Your task to perform on an android device: Open Youtube and go to the subscriptions tab Image 0: 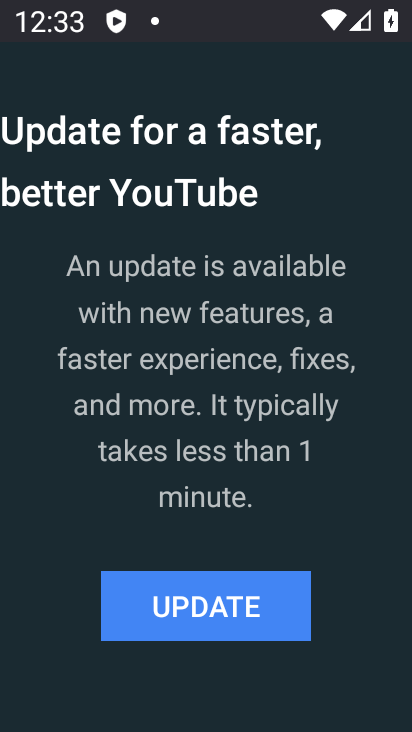
Step 0: press back button
Your task to perform on an android device: Open Youtube and go to the subscriptions tab Image 1: 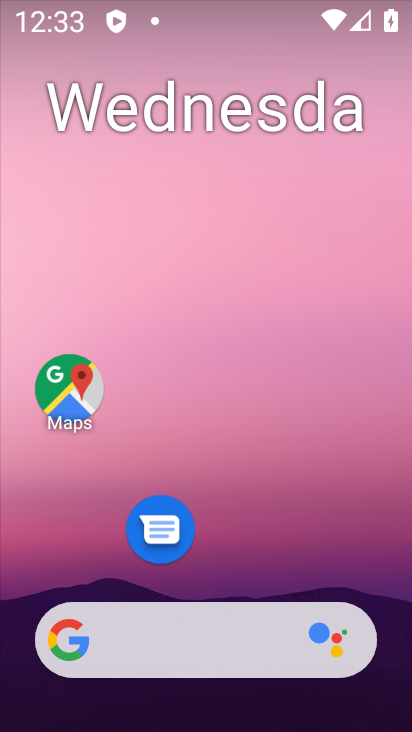
Step 1: drag from (244, 599) to (373, 546)
Your task to perform on an android device: Open Youtube and go to the subscriptions tab Image 2: 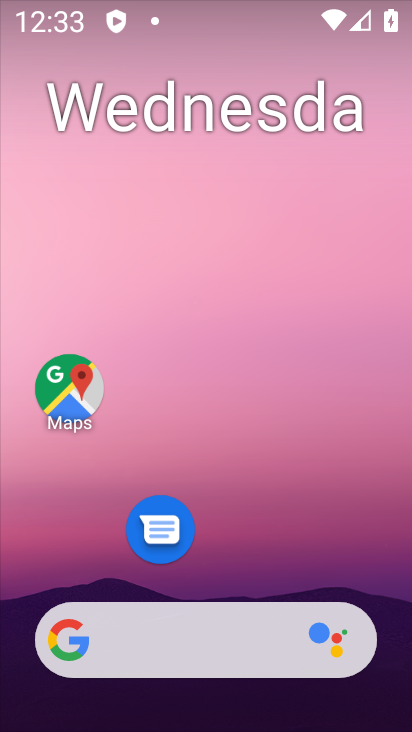
Step 2: drag from (339, 679) to (279, 2)
Your task to perform on an android device: Open Youtube and go to the subscriptions tab Image 3: 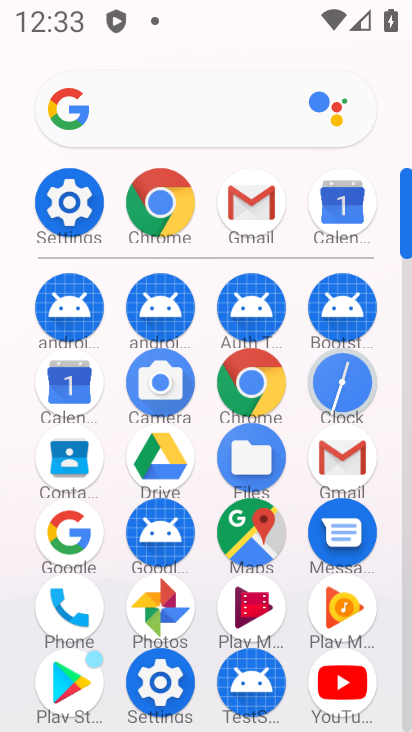
Step 3: click (346, 693)
Your task to perform on an android device: Open Youtube and go to the subscriptions tab Image 4: 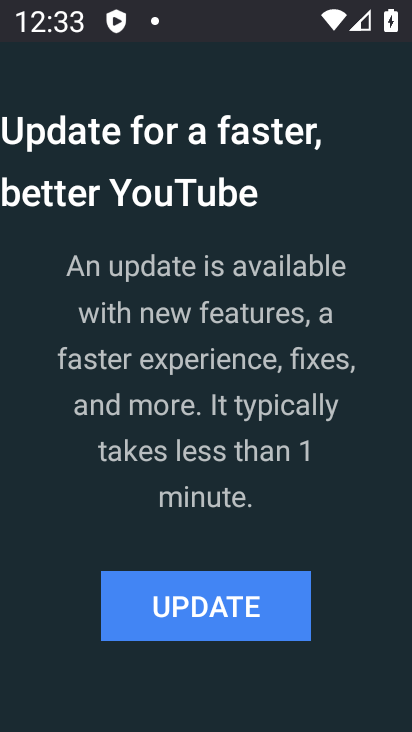
Step 4: click (208, 619)
Your task to perform on an android device: Open Youtube and go to the subscriptions tab Image 5: 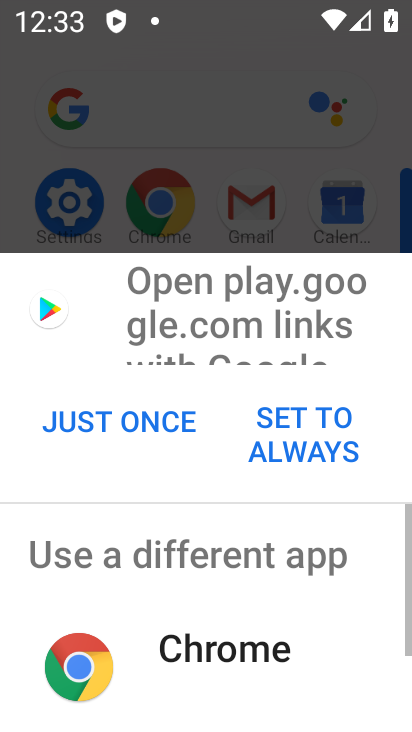
Step 5: click (109, 445)
Your task to perform on an android device: Open Youtube and go to the subscriptions tab Image 6: 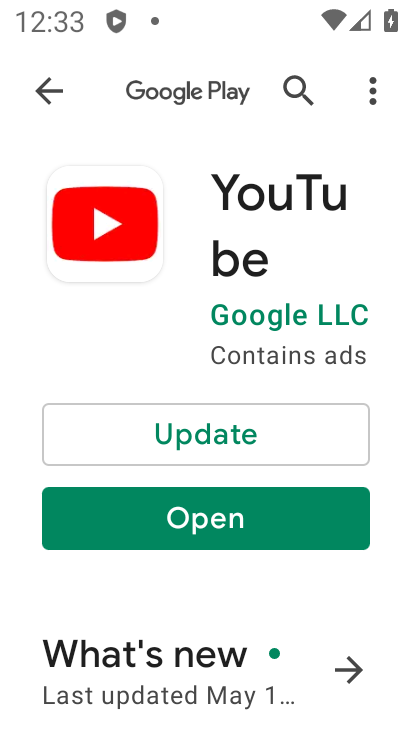
Step 6: click (202, 424)
Your task to perform on an android device: Open Youtube and go to the subscriptions tab Image 7: 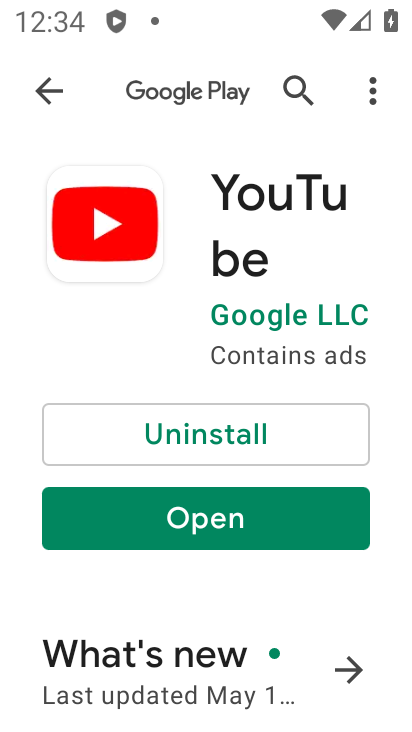
Step 7: click (238, 533)
Your task to perform on an android device: Open Youtube and go to the subscriptions tab Image 8: 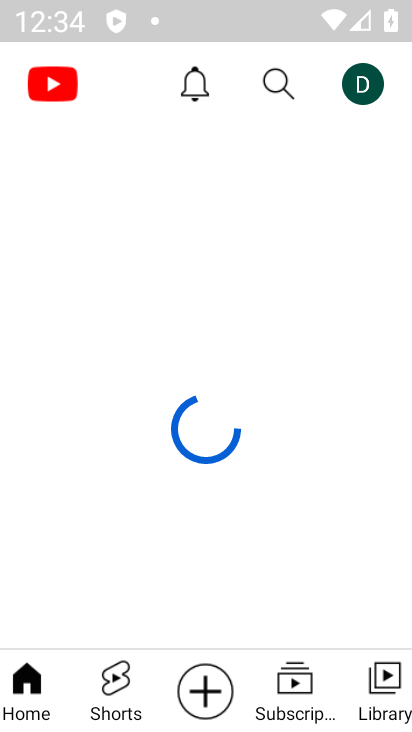
Step 8: click (268, 695)
Your task to perform on an android device: Open Youtube and go to the subscriptions tab Image 9: 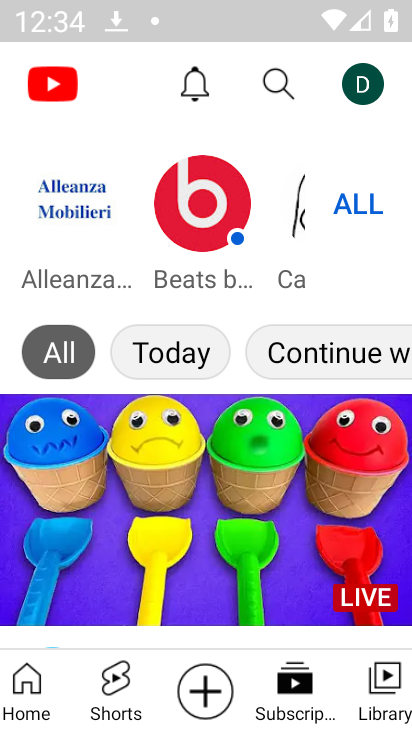
Step 9: task complete